Your task to perform on an android device: Go to Amazon Image 0: 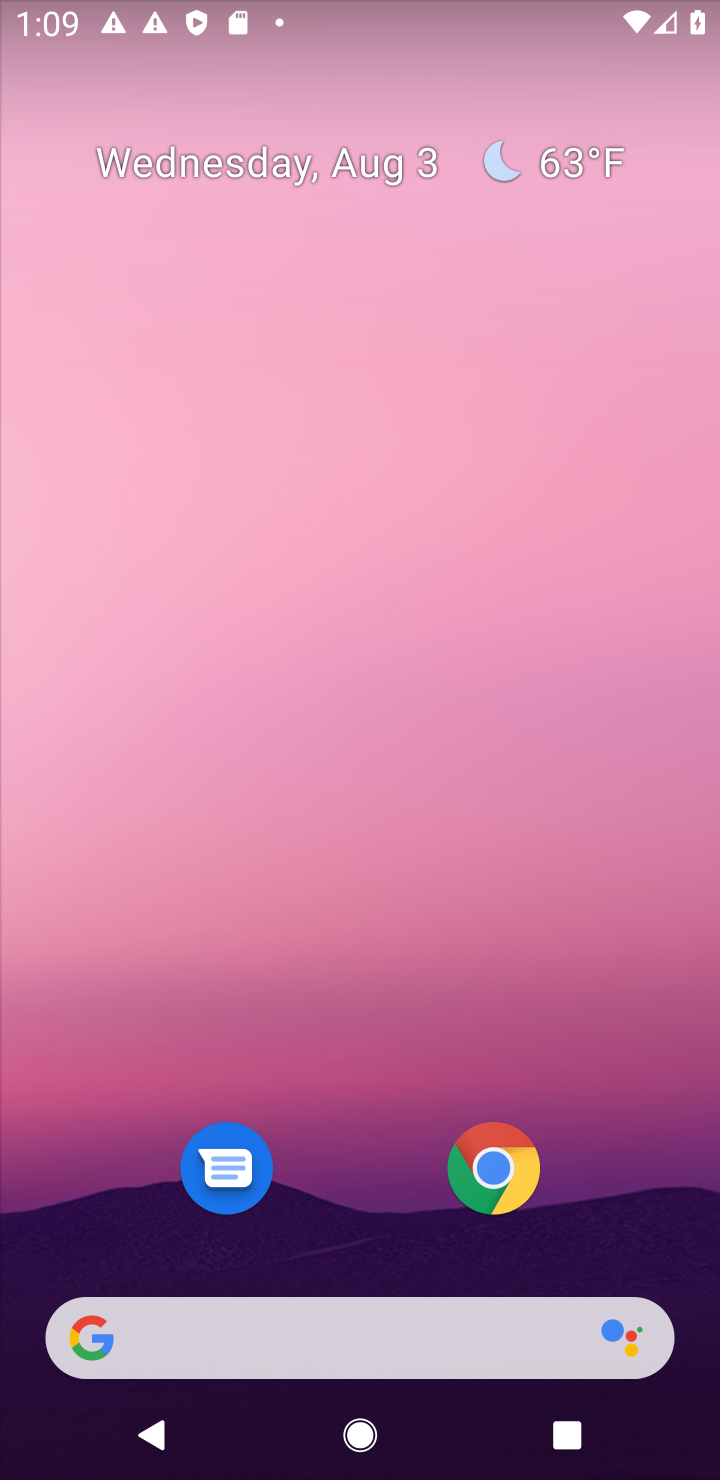
Step 0: click (496, 1177)
Your task to perform on an android device: Go to Amazon Image 1: 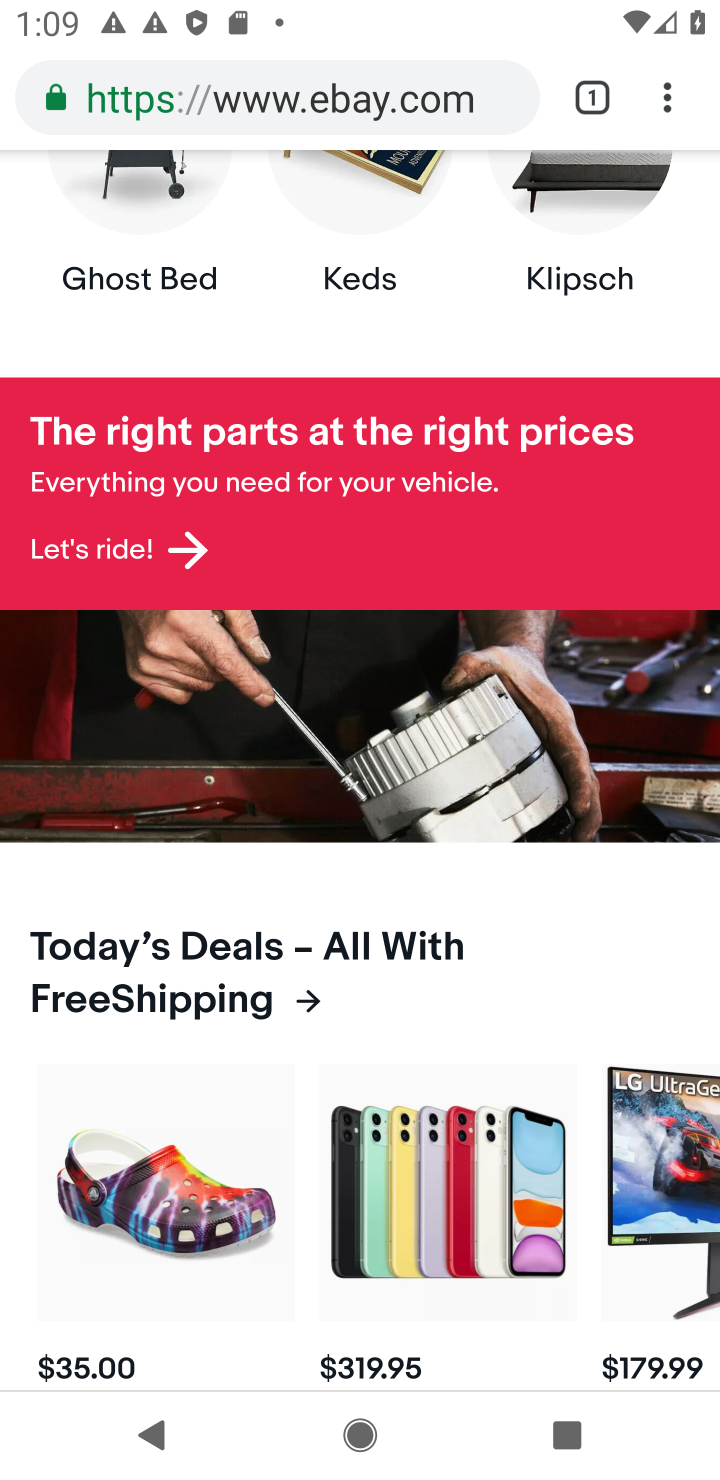
Step 1: click (509, 96)
Your task to perform on an android device: Go to Amazon Image 2: 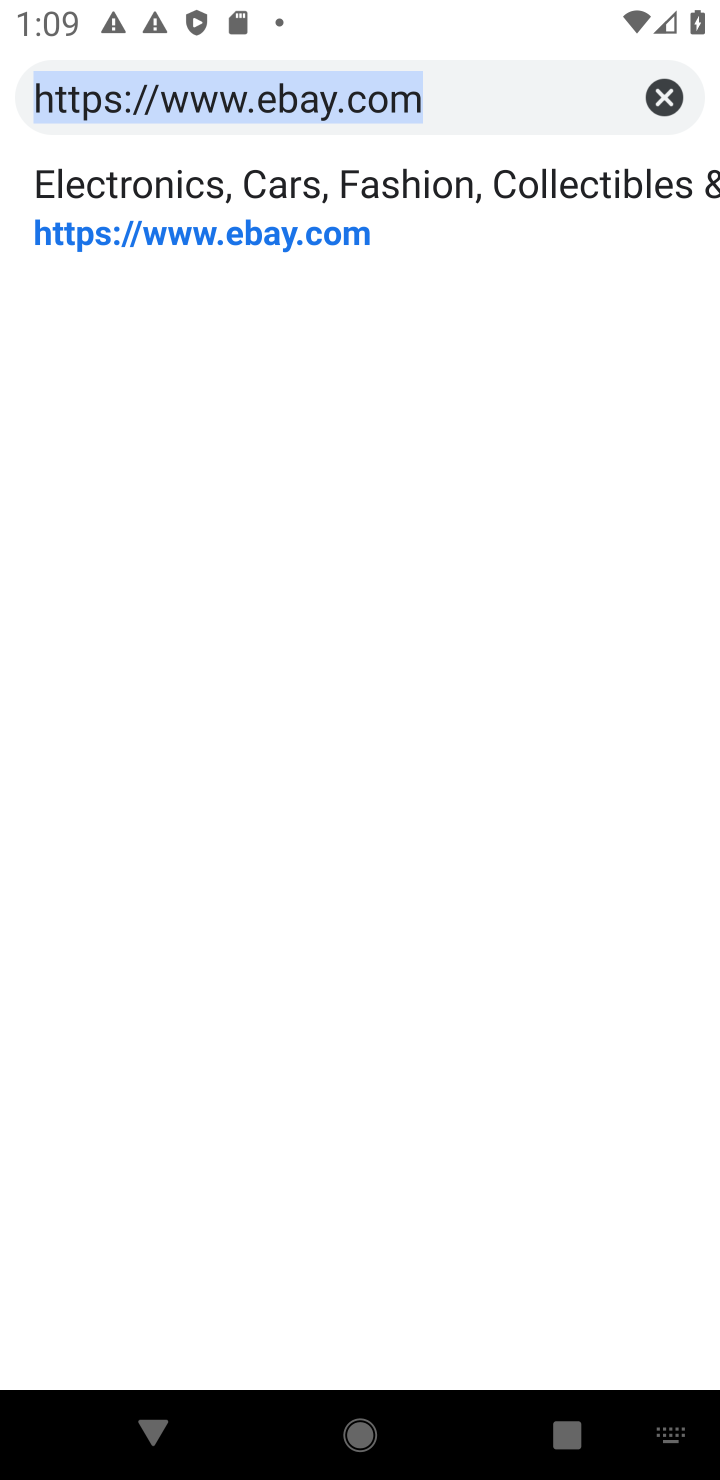
Step 2: click (656, 90)
Your task to perform on an android device: Go to Amazon Image 3: 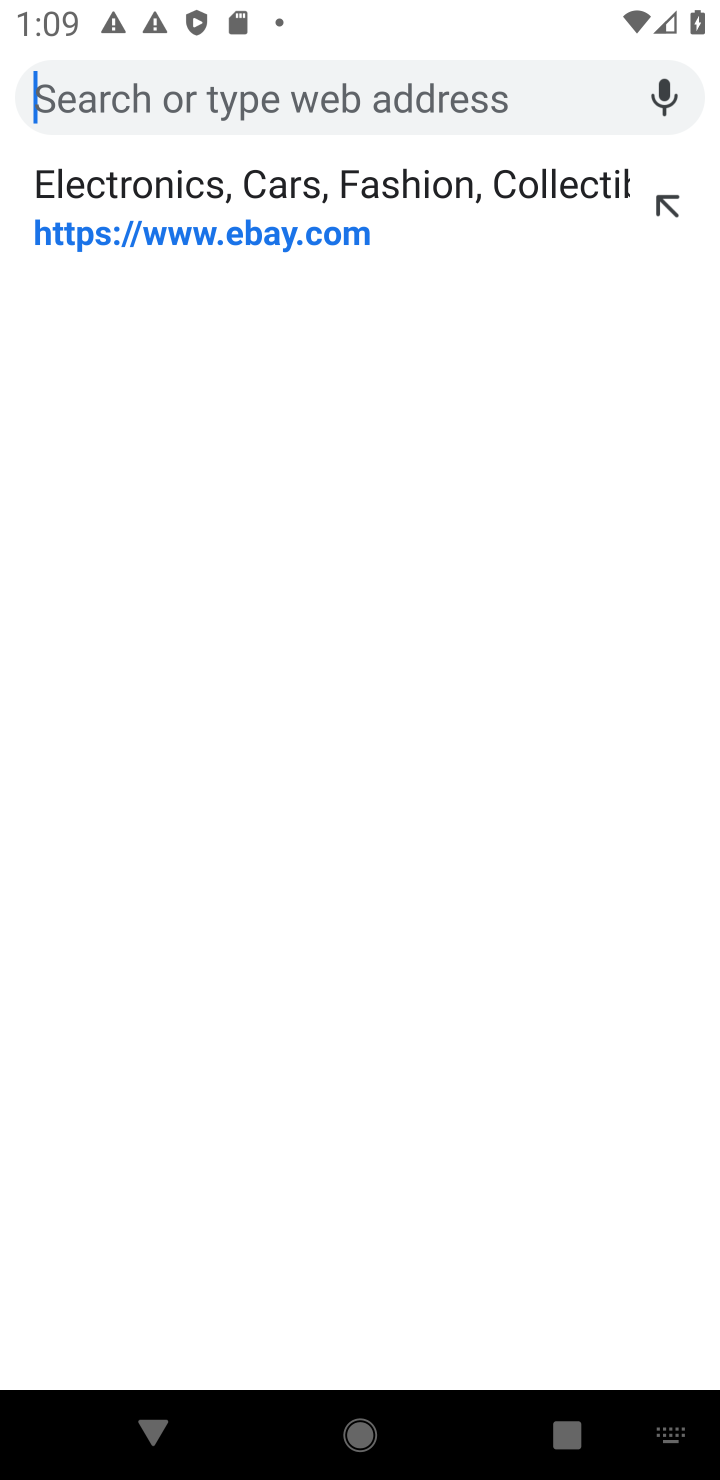
Step 3: type "Amazon"
Your task to perform on an android device: Go to Amazon Image 4: 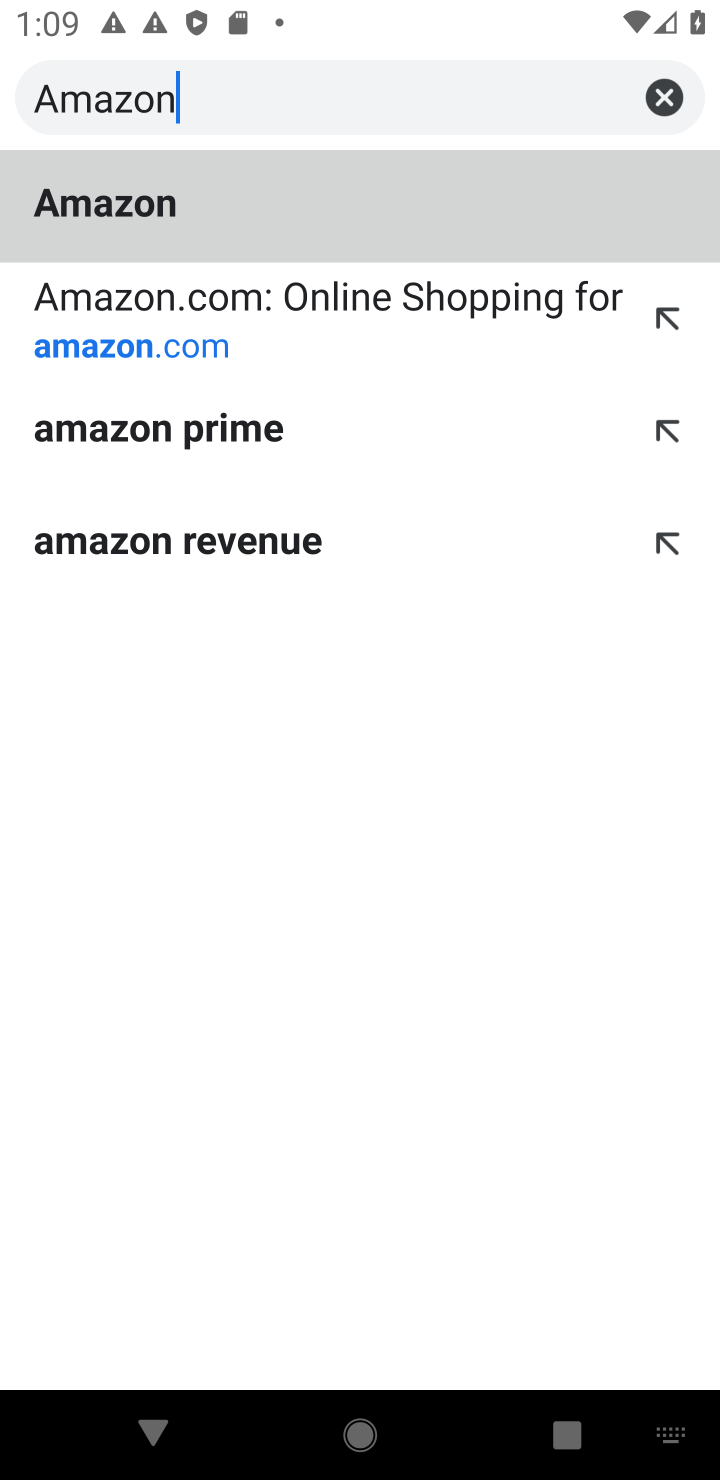
Step 4: click (153, 198)
Your task to perform on an android device: Go to Amazon Image 5: 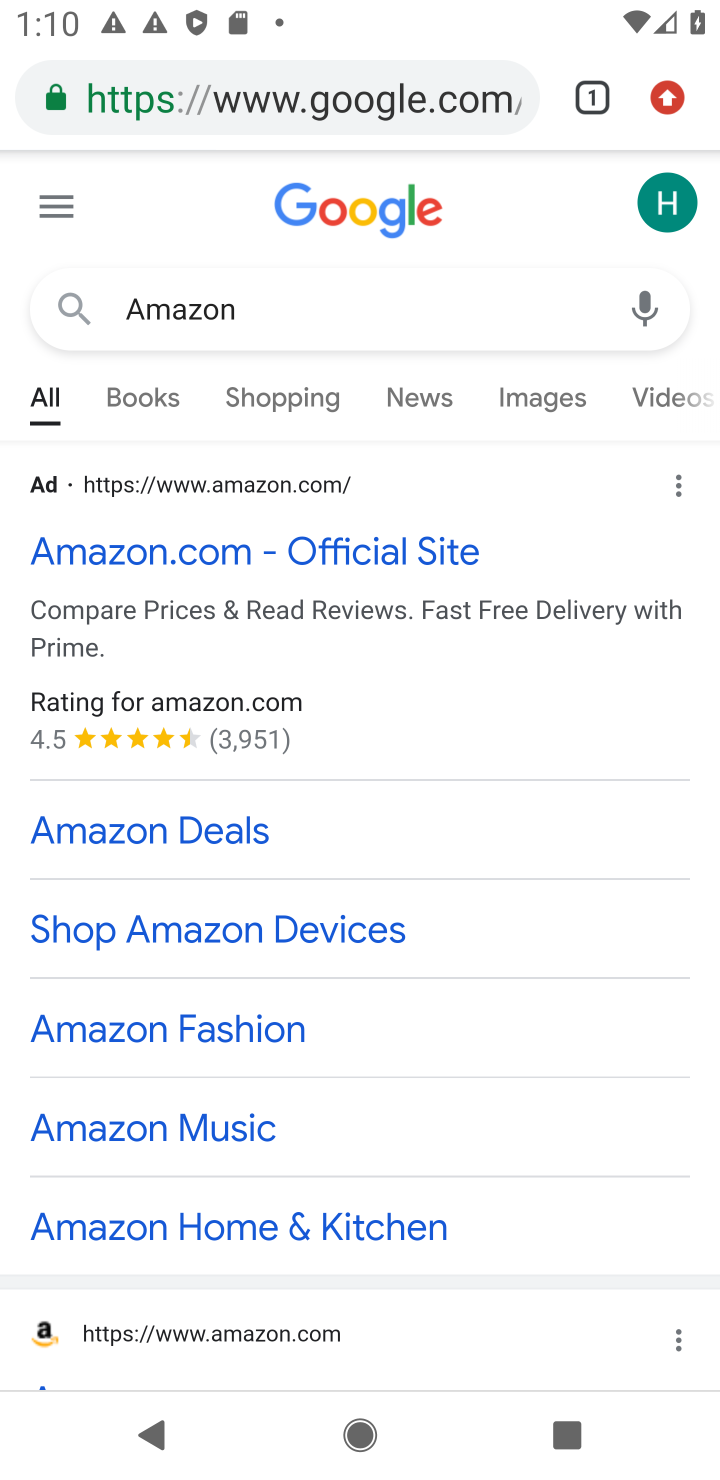
Step 5: click (129, 554)
Your task to perform on an android device: Go to Amazon Image 6: 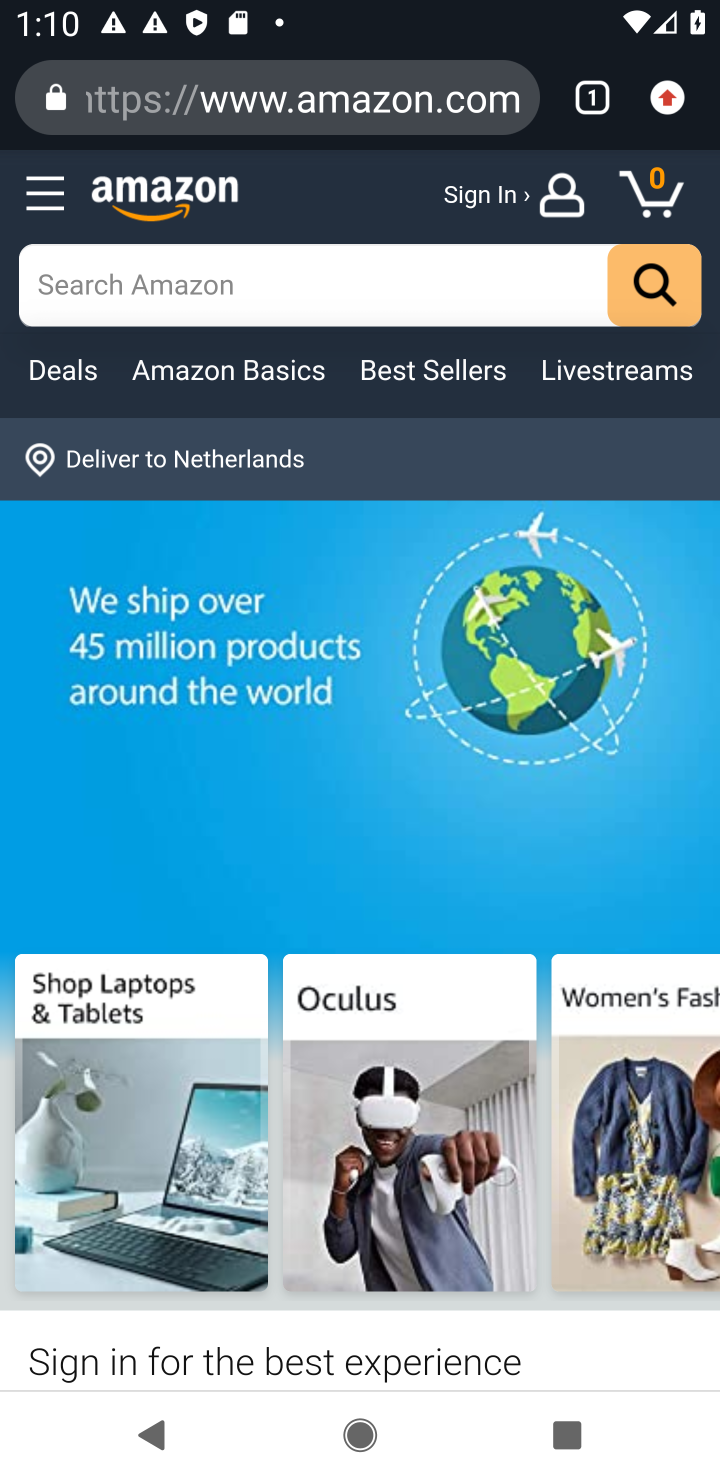
Step 6: task complete